Your task to perform on an android device: Open settings on Google Maps Image 0: 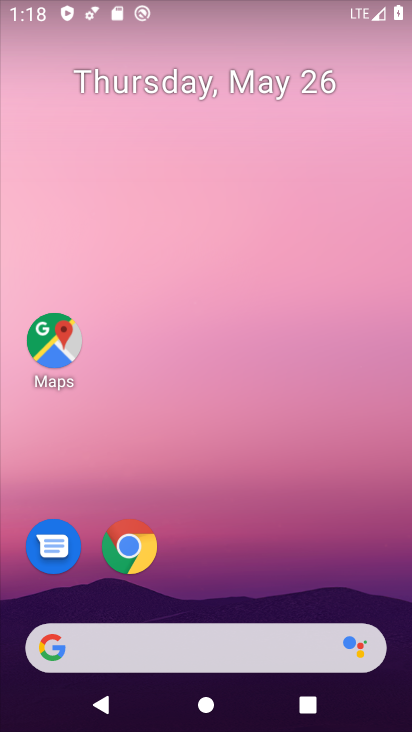
Step 0: click (49, 335)
Your task to perform on an android device: Open settings on Google Maps Image 1: 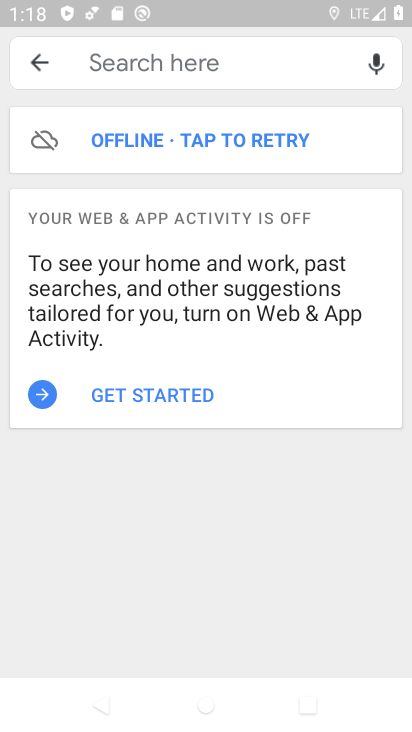
Step 1: click (39, 68)
Your task to perform on an android device: Open settings on Google Maps Image 2: 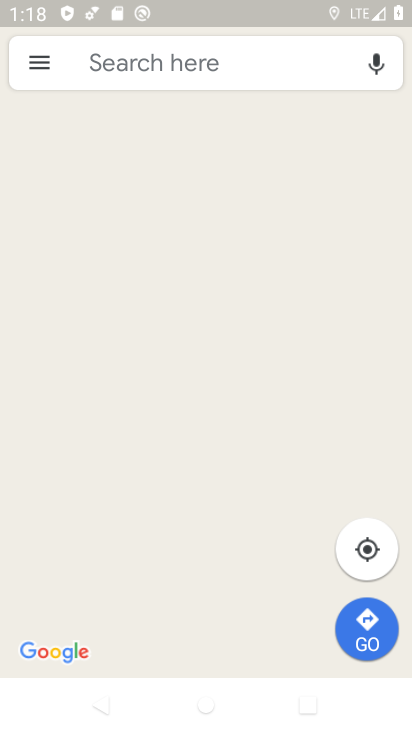
Step 2: click (40, 65)
Your task to perform on an android device: Open settings on Google Maps Image 3: 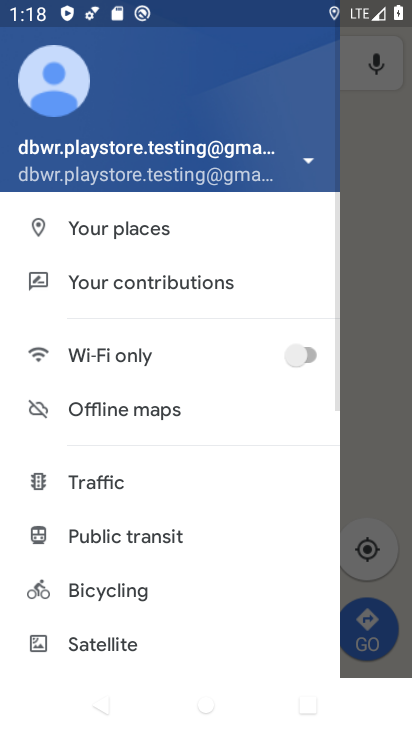
Step 3: drag from (157, 649) to (124, 105)
Your task to perform on an android device: Open settings on Google Maps Image 4: 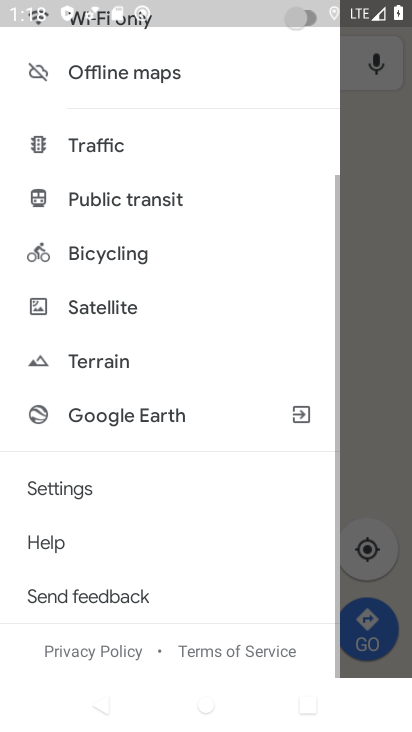
Step 4: click (106, 485)
Your task to perform on an android device: Open settings on Google Maps Image 5: 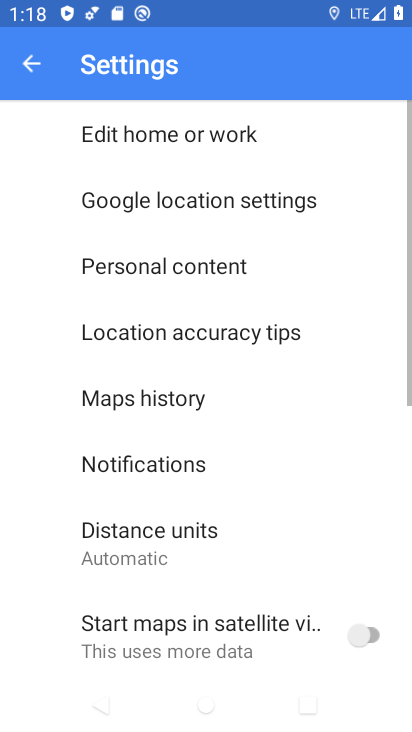
Step 5: task complete